Your task to perform on an android device: Open network settings Image 0: 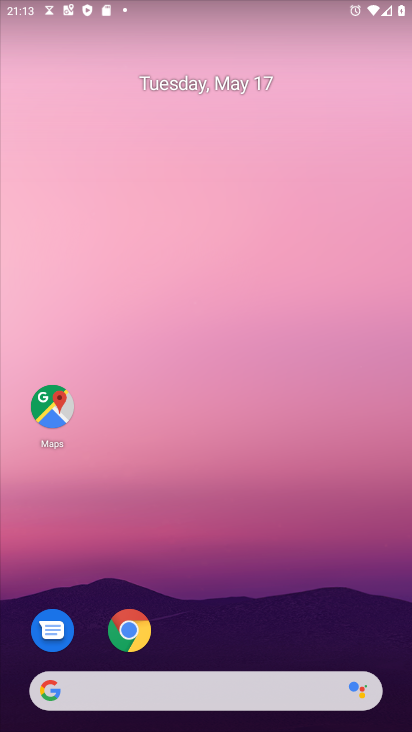
Step 0: drag from (214, 544) to (202, 122)
Your task to perform on an android device: Open network settings Image 1: 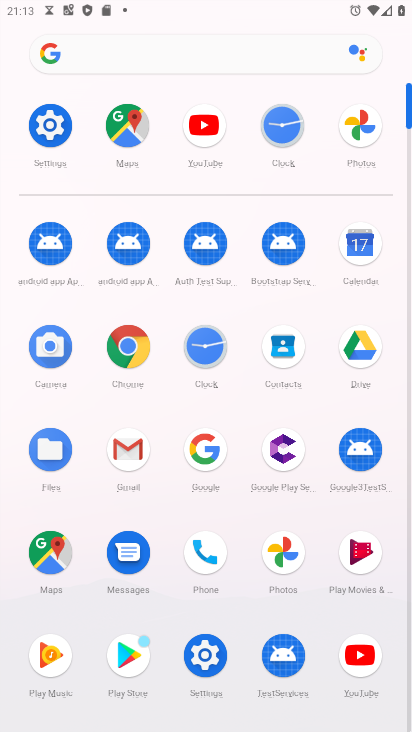
Step 1: click (198, 657)
Your task to perform on an android device: Open network settings Image 2: 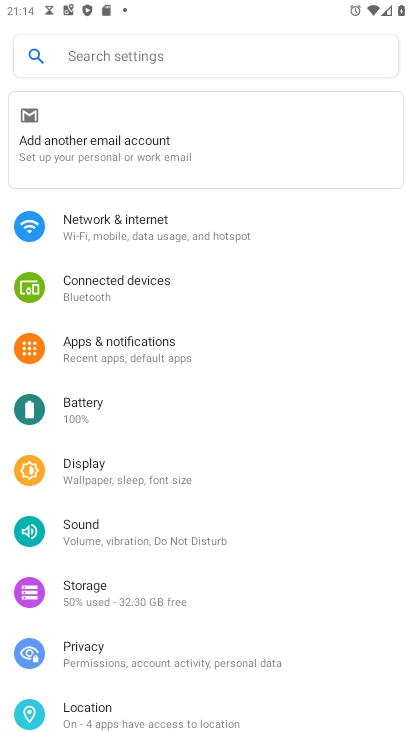
Step 2: click (211, 237)
Your task to perform on an android device: Open network settings Image 3: 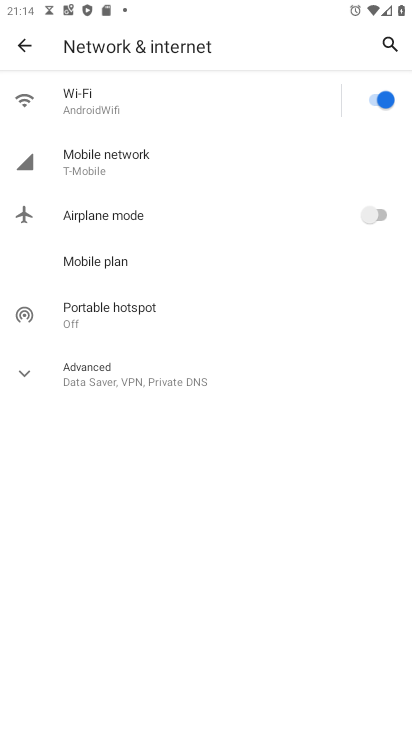
Step 3: click (108, 156)
Your task to perform on an android device: Open network settings Image 4: 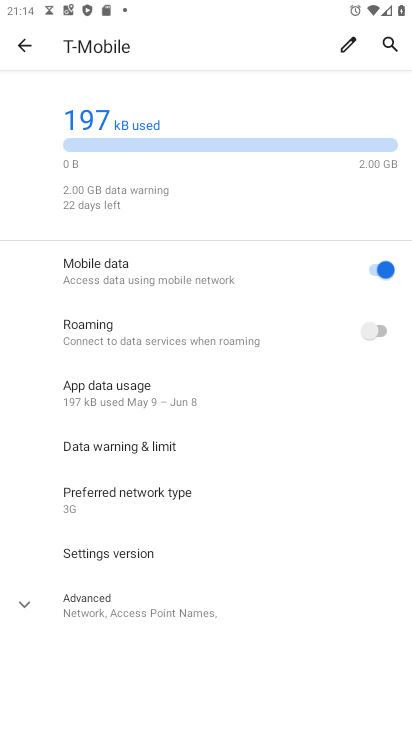
Step 4: click (98, 606)
Your task to perform on an android device: Open network settings Image 5: 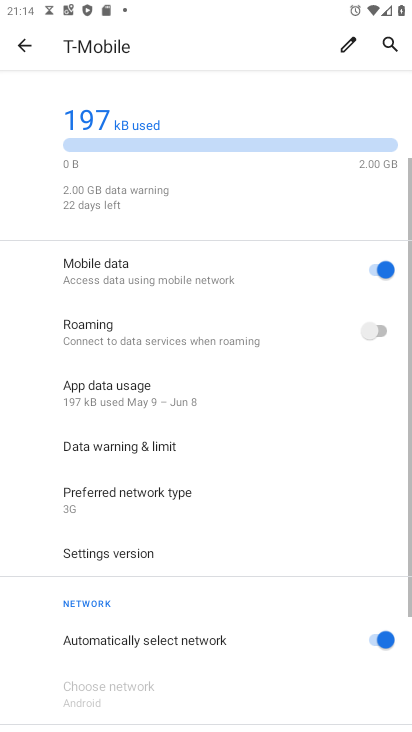
Step 5: task complete